Your task to perform on an android device: set an alarm Image 0: 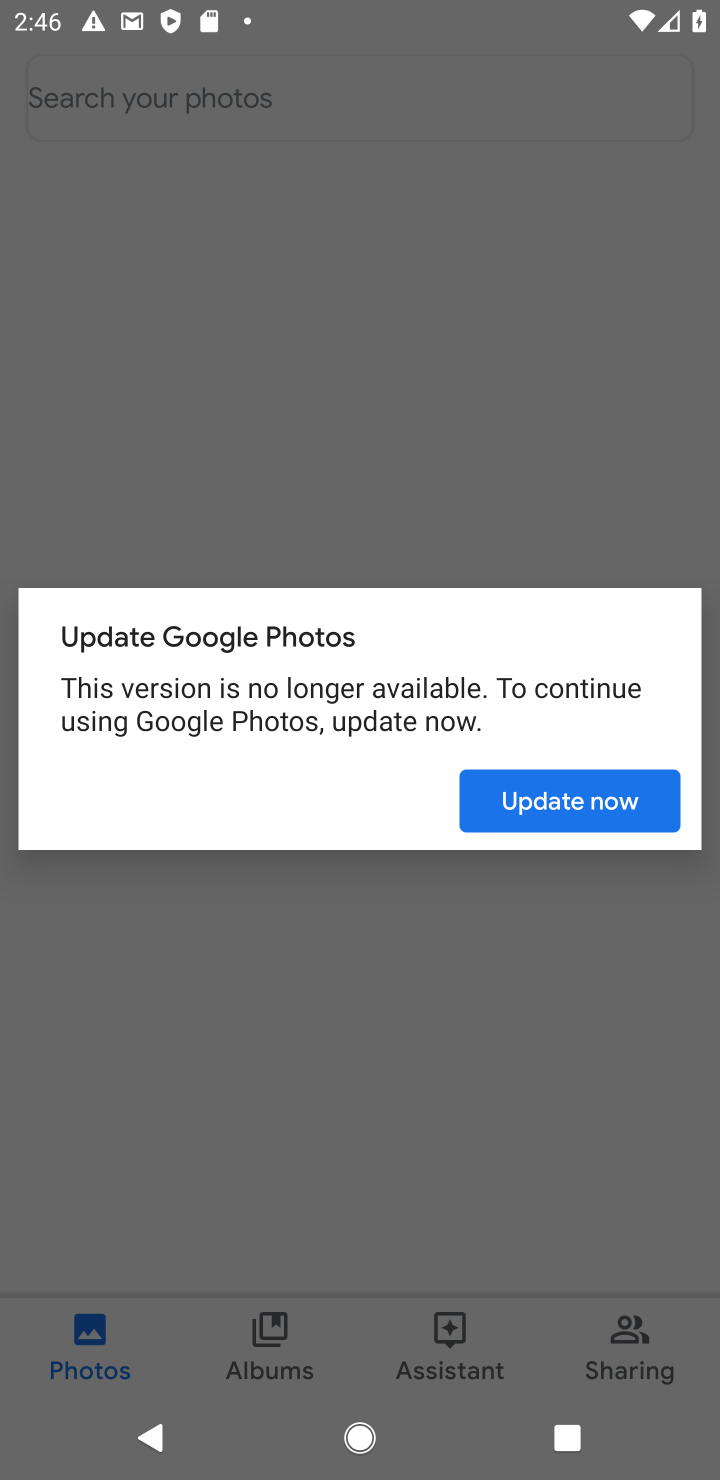
Step 0: press home button
Your task to perform on an android device: set an alarm Image 1: 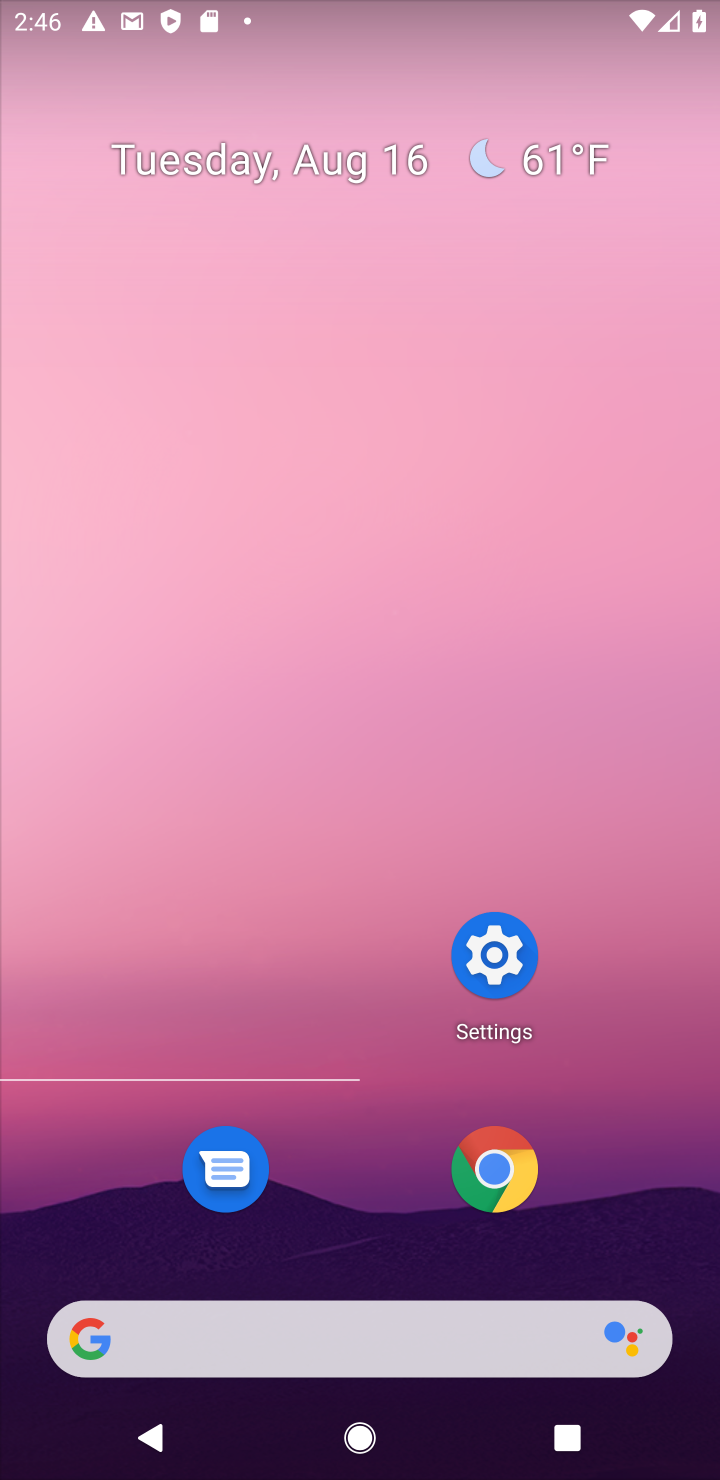
Step 1: drag from (284, 1330) to (492, 54)
Your task to perform on an android device: set an alarm Image 2: 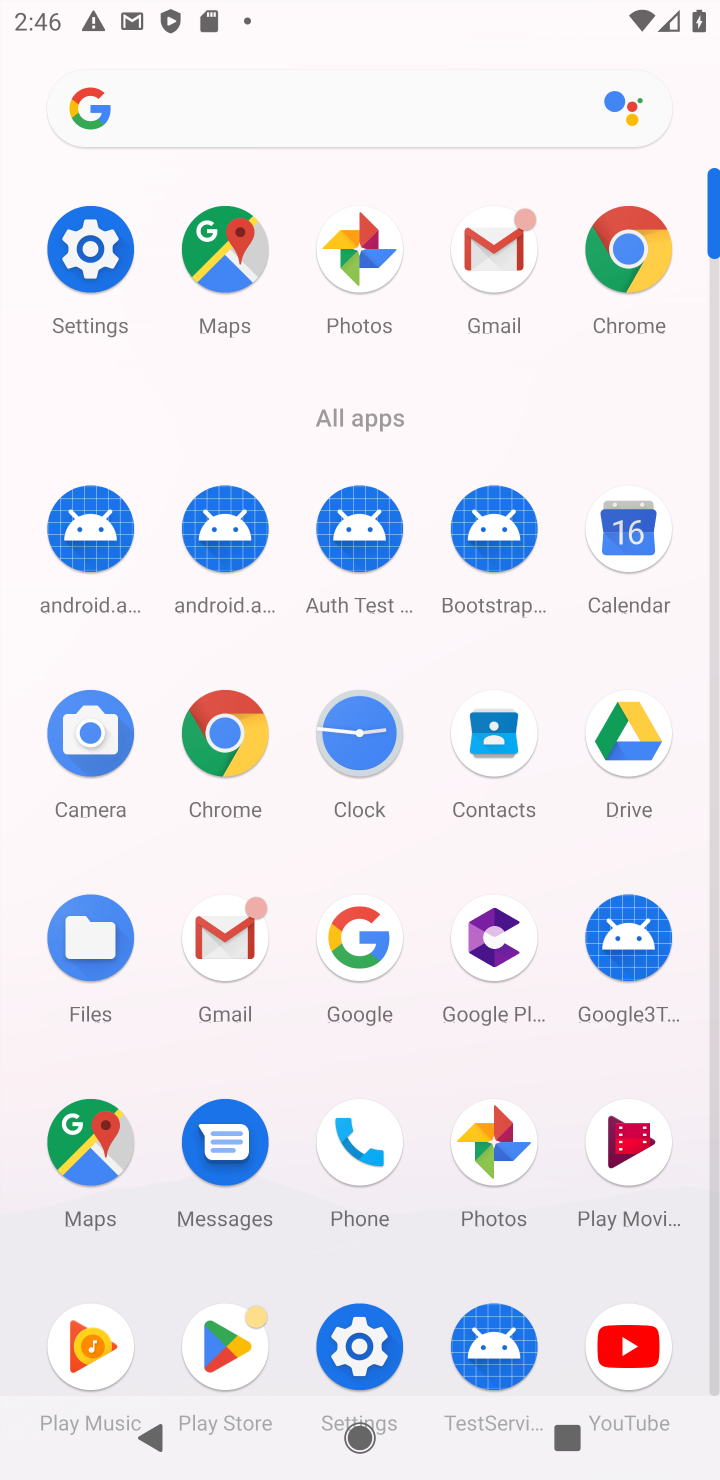
Step 2: click (367, 731)
Your task to perform on an android device: set an alarm Image 3: 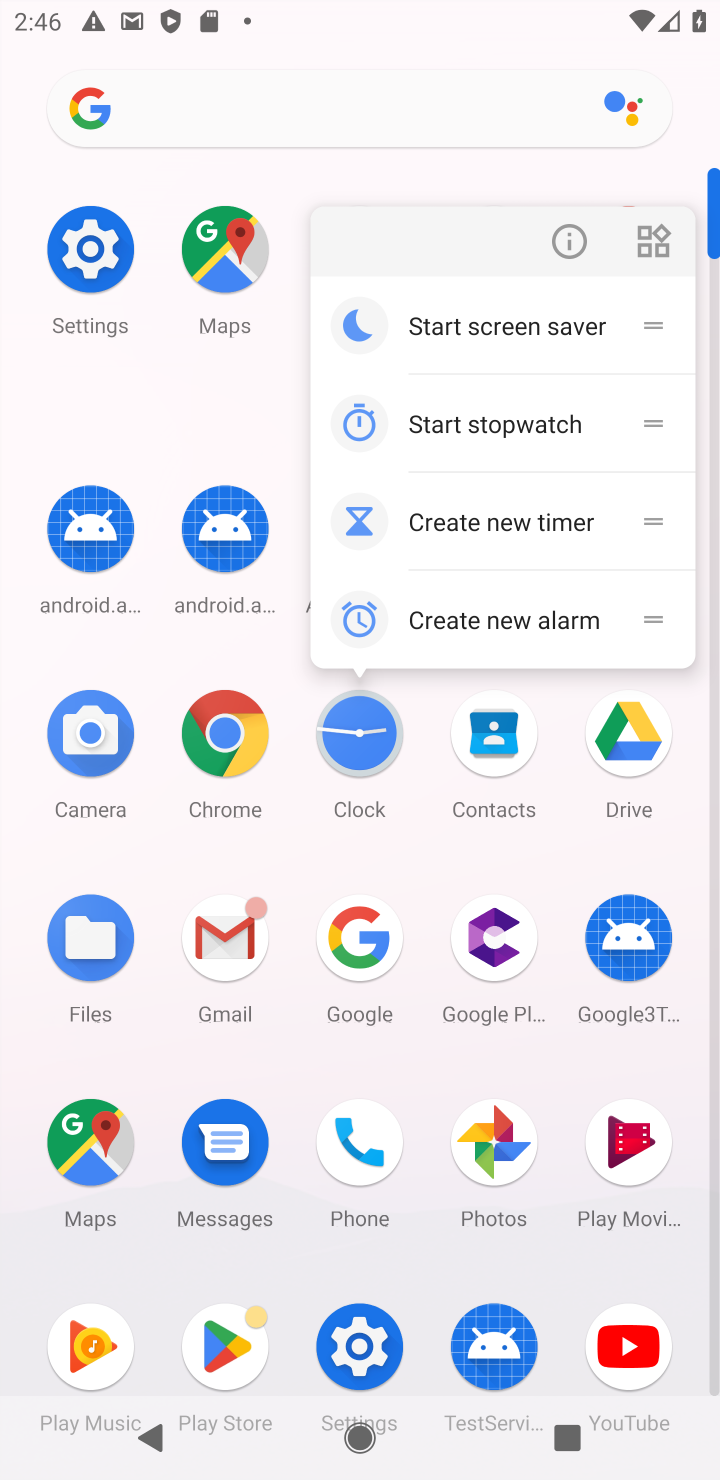
Step 3: click (358, 734)
Your task to perform on an android device: set an alarm Image 4: 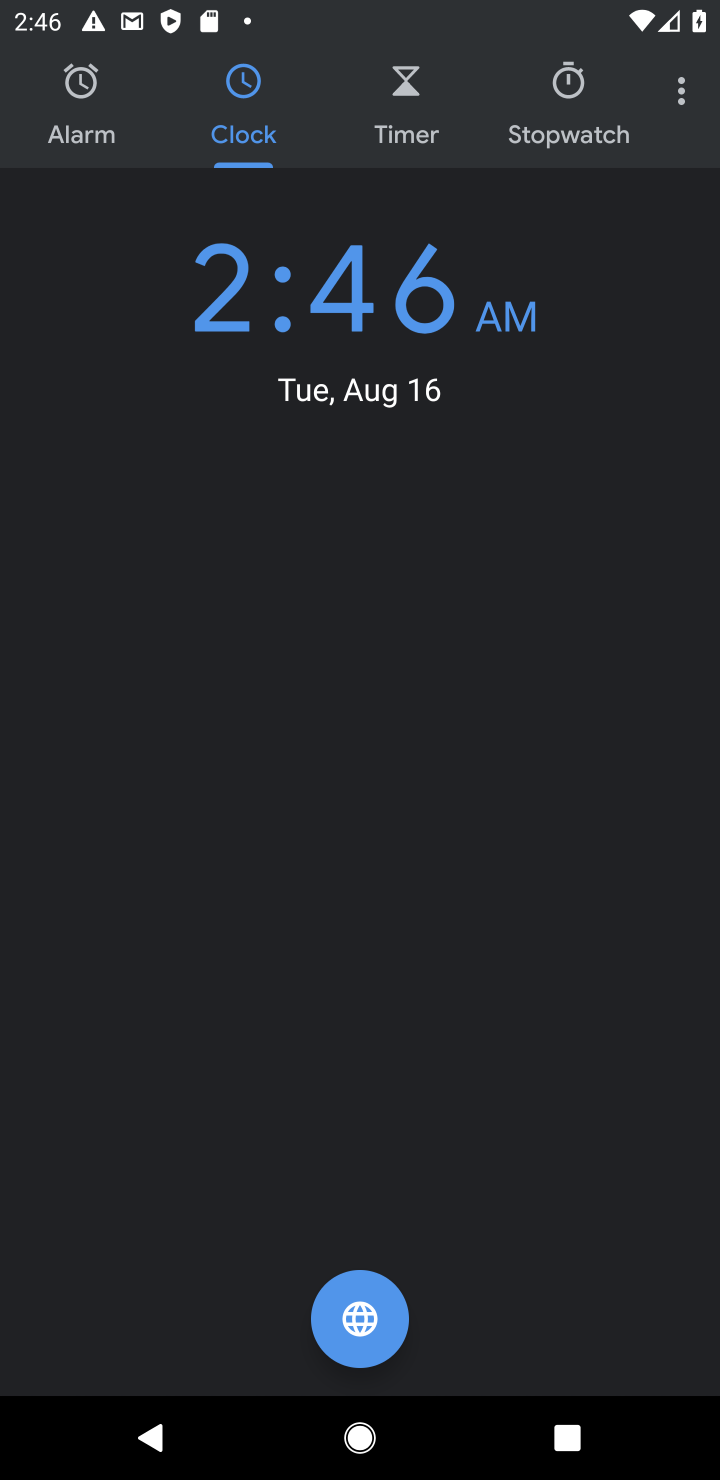
Step 4: click (122, 92)
Your task to perform on an android device: set an alarm Image 5: 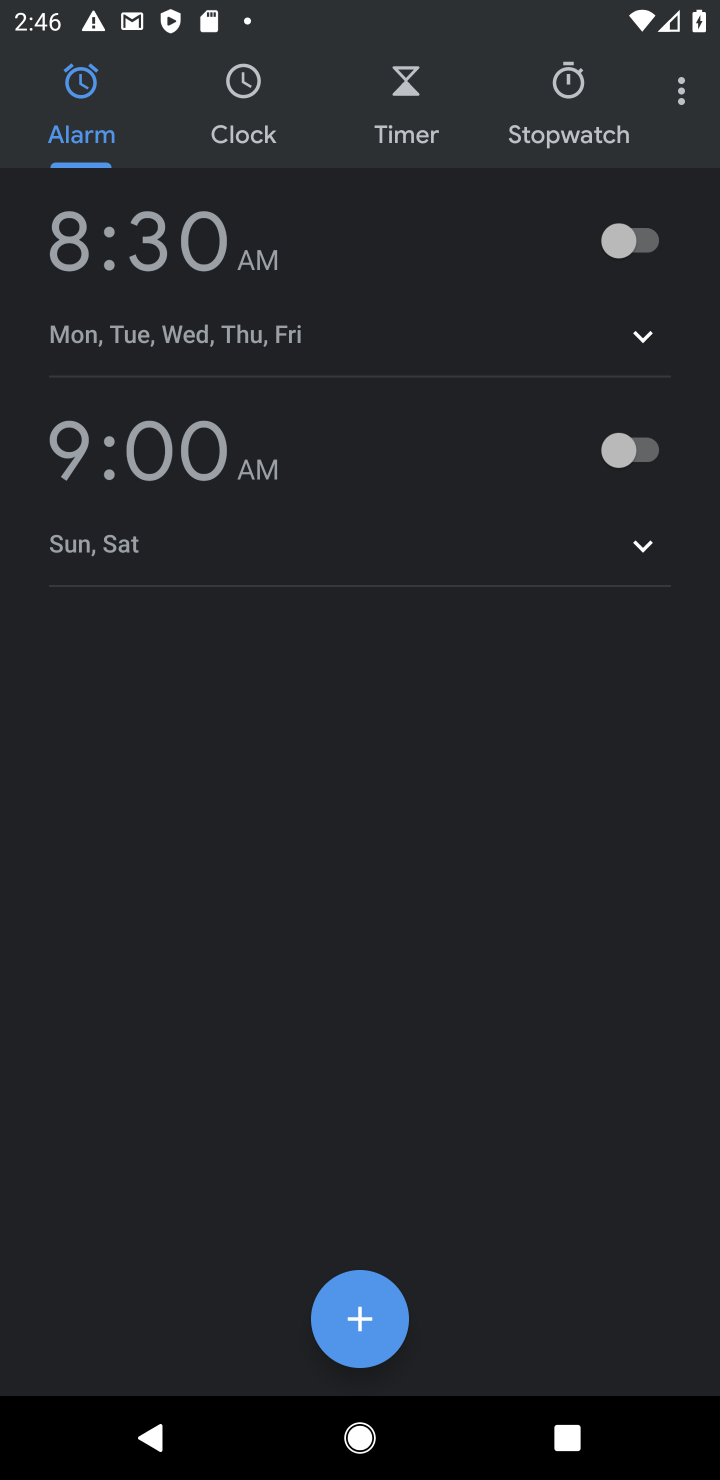
Step 5: click (643, 238)
Your task to perform on an android device: set an alarm Image 6: 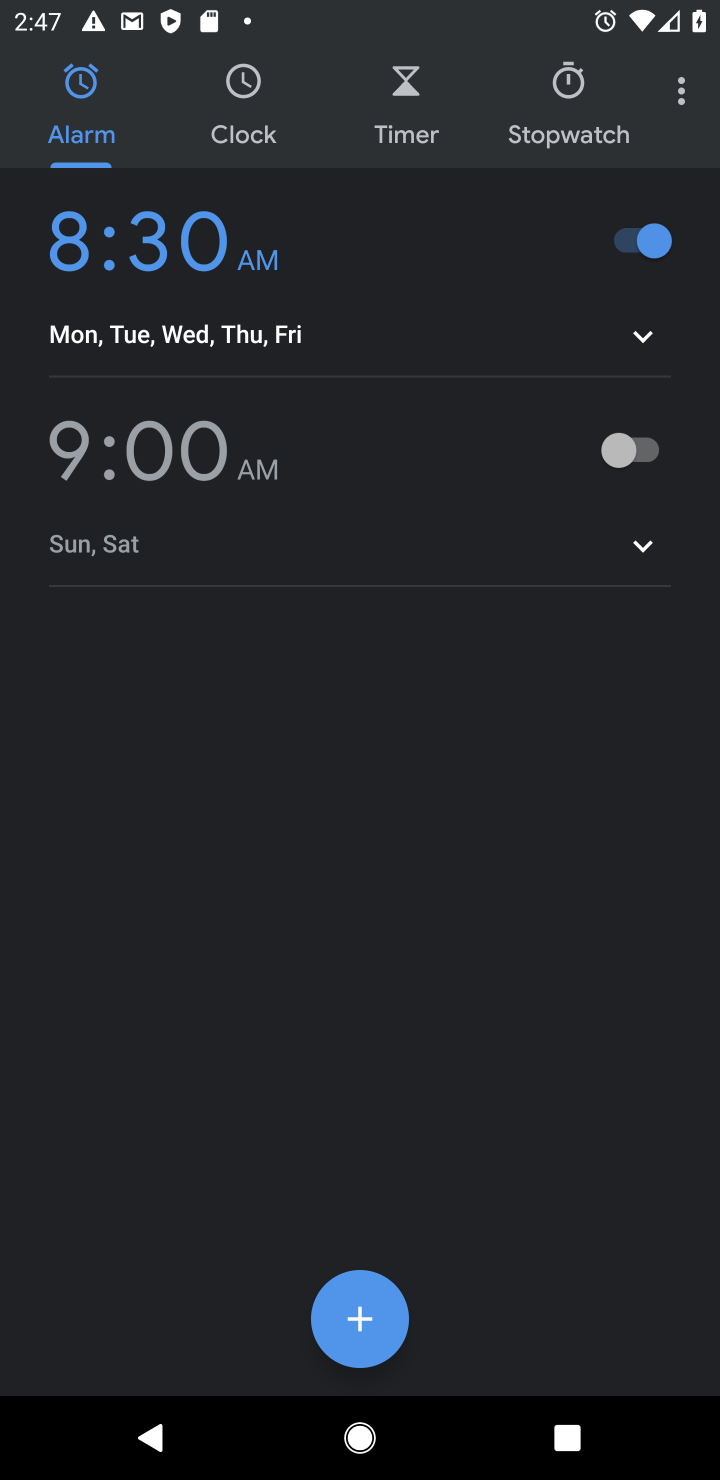
Step 6: task complete